Your task to perform on an android device: turn pop-ups off in chrome Image 0: 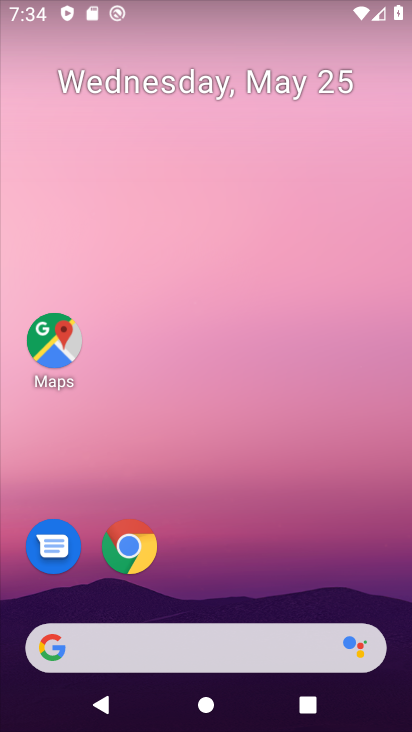
Step 0: click (64, 348)
Your task to perform on an android device: turn pop-ups off in chrome Image 1: 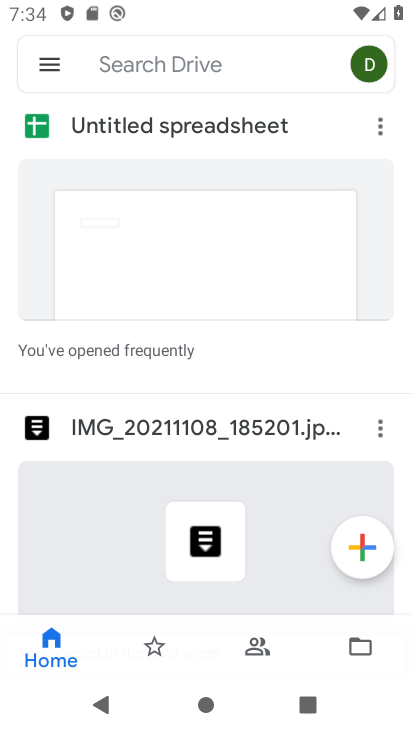
Step 1: press home button
Your task to perform on an android device: turn pop-ups off in chrome Image 2: 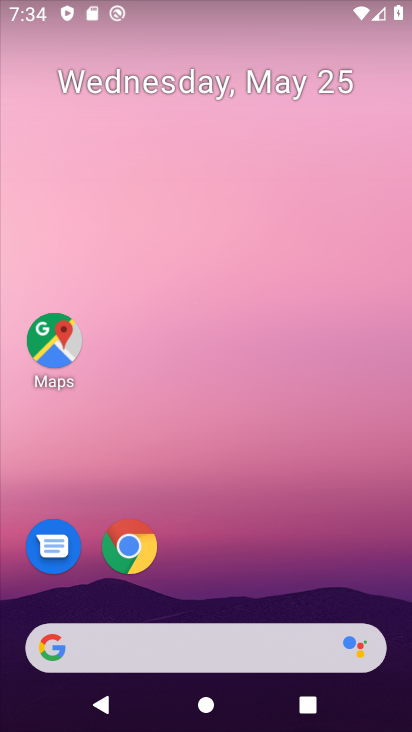
Step 2: click (126, 538)
Your task to perform on an android device: turn pop-ups off in chrome Image 3: 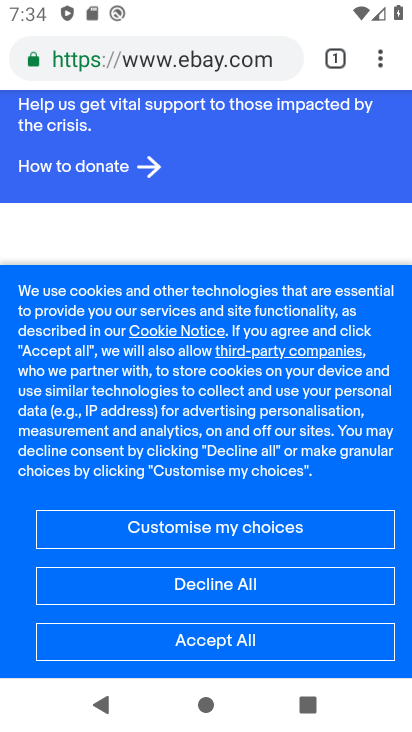
Step 3: click (385, 58)
Your task to perform on an android device: turn pop-ups off in chrome Image 4: 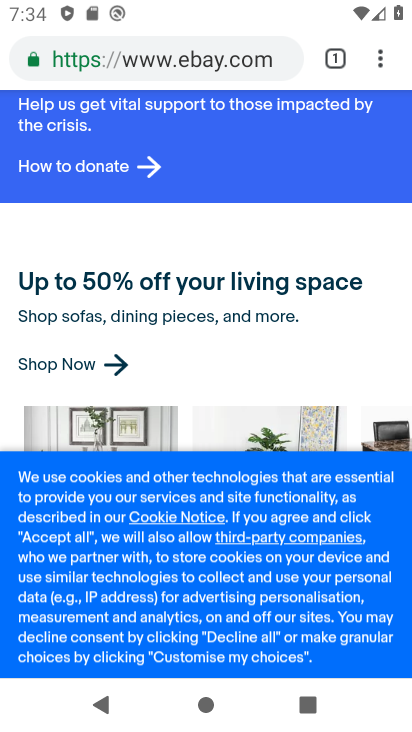
Step 4: click (381, 66)
Your task to perform on an android device: turn pop-ups off in chrome Image 5: 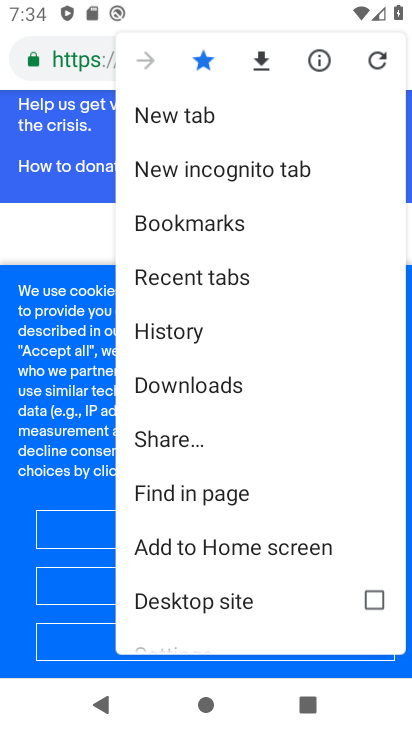
Step 5: drag from (242, 580) to (281, 227)
Your task to perform on an android device: turn pop-ups off in chrome Image 6: 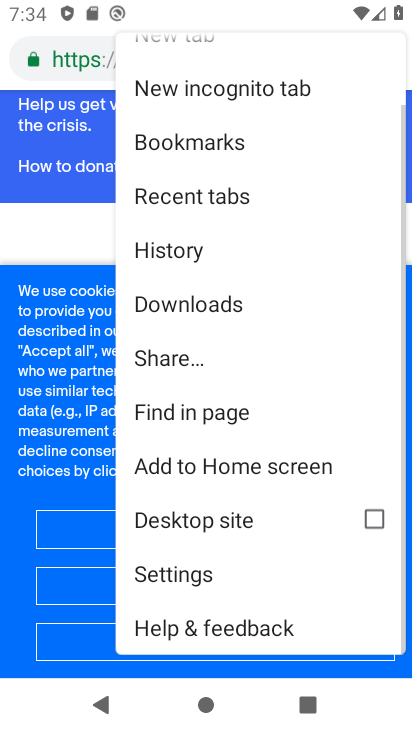
Step 6: click (183, 585)
Your task to perform on an android device: turn pop-ups off in chrome Image 7: 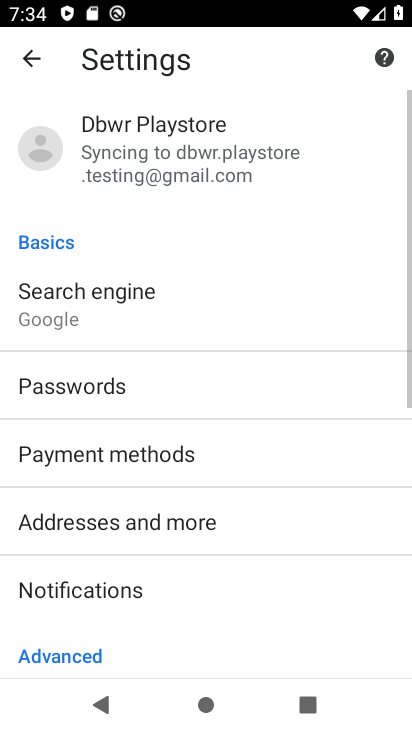
Step 7: drag from (164, 614) to (171, 288)
Your task to perform on an android device: turn pop-ups off in chrome Image 8: 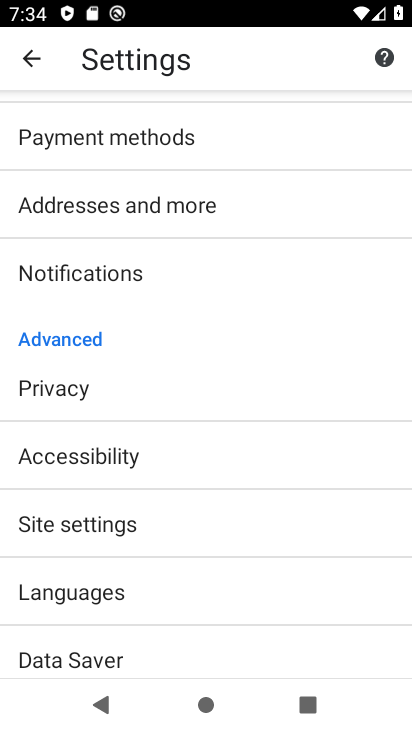
Step 8: click (110, 530)
Your task to perform on an android device: turn pop-ups off in chrome Image 9: 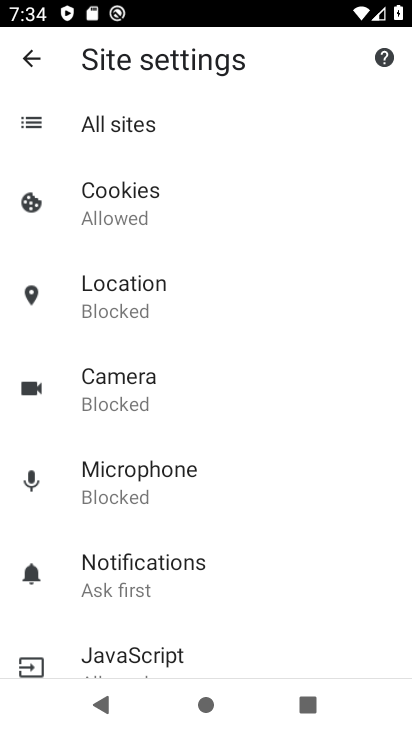
Step 9: drag from (167, 603) to (220, 276)
Your task to perform on an android device: turn pop-ups off in chrome Image 10: 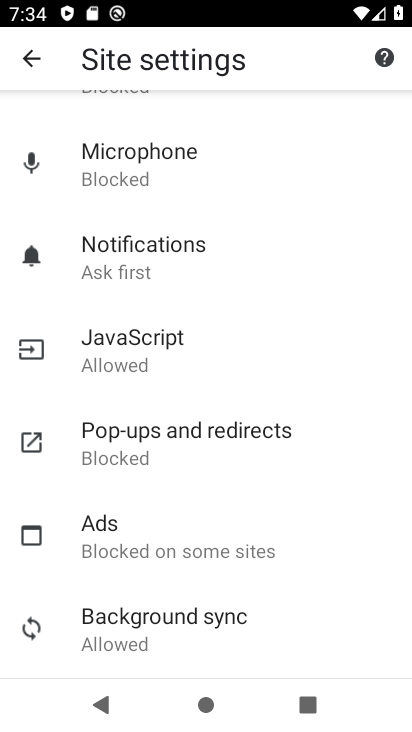
Step 10: click (134, 437)
Your task to perform on an android device: turn pop-ups off in chrome Image 11: 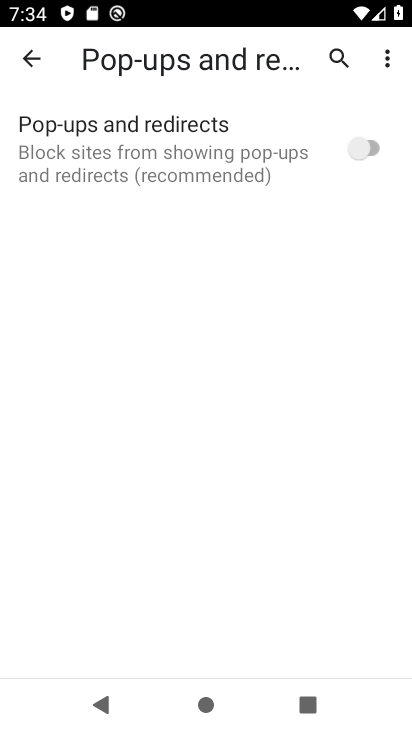
Step 11: task complete